Your task to perform on an android device: Toggle the flashlight Image 0: 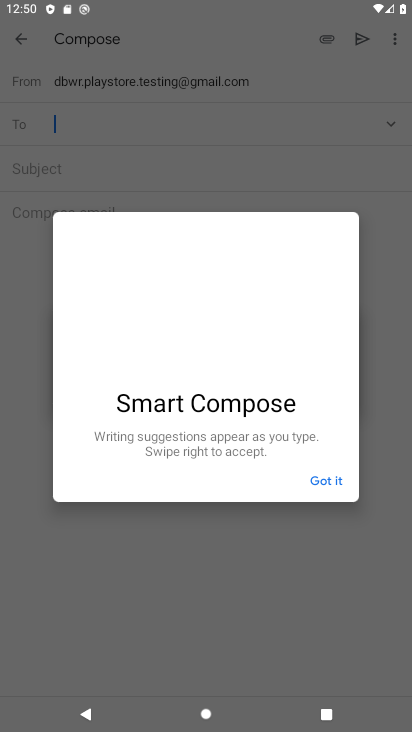
Step 0: press home button
Your task to perform on an android device: Toggle the flashlight Image 1: 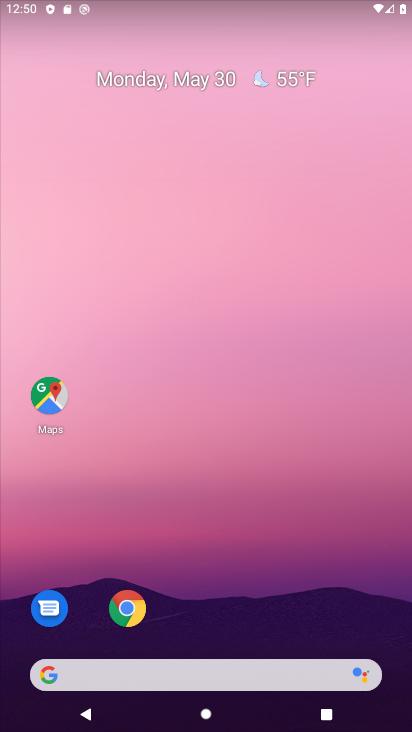
Step 1: task complete